Your task to perform on an android device: Turn on the flashlight Image 0: 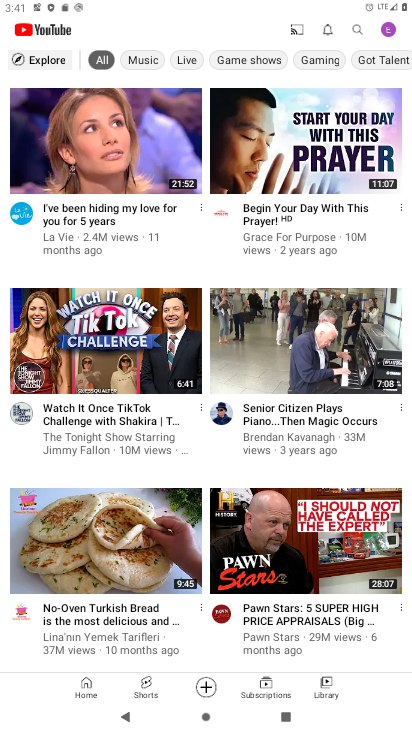
Step 0: press home button
Your task to perform on an android device: Turn on the flashlight Image 1: 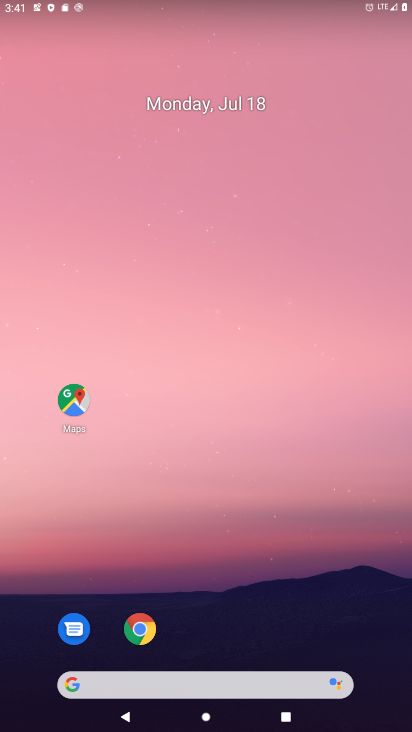
Step 1: drag from (266, 614) to (408, 0)
Your task to perform on an android device: Turn on the flashlight Image 2: 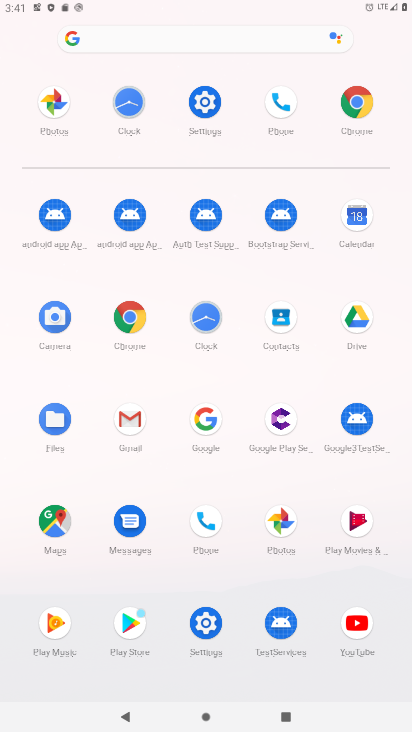
Step 2: click (213, 625)
Your task to perform on an android device: Turn on the flashlight Image 3: 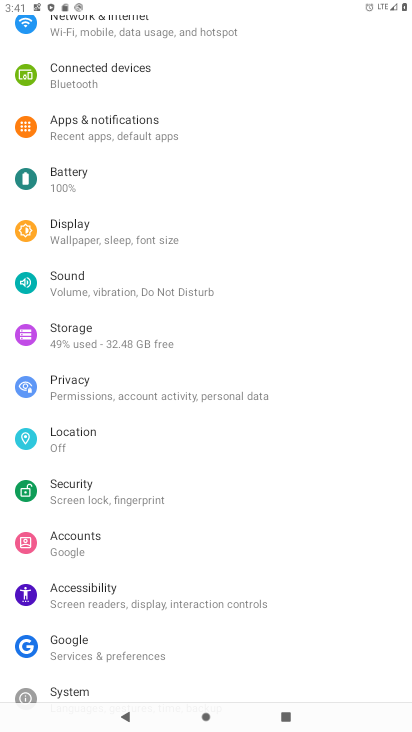
Step 3: drag from (216, 182) to (217, 607)
Your task to perform on an android device: Turn on the flashlight Image 4: 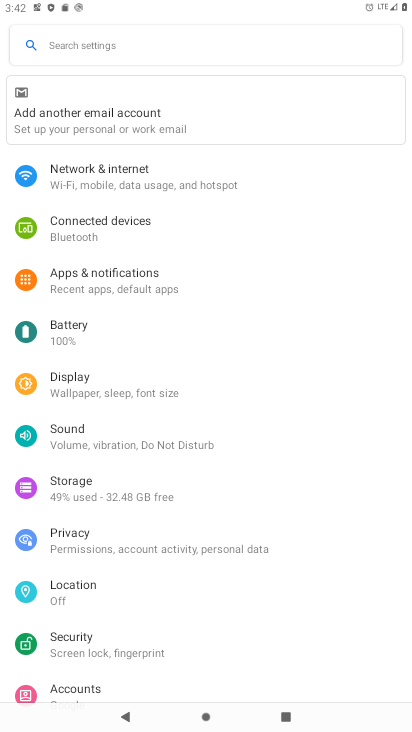
Step 4: click (195, 40)
Your task to perform on an android device: Turn on the flashlight Image 5: 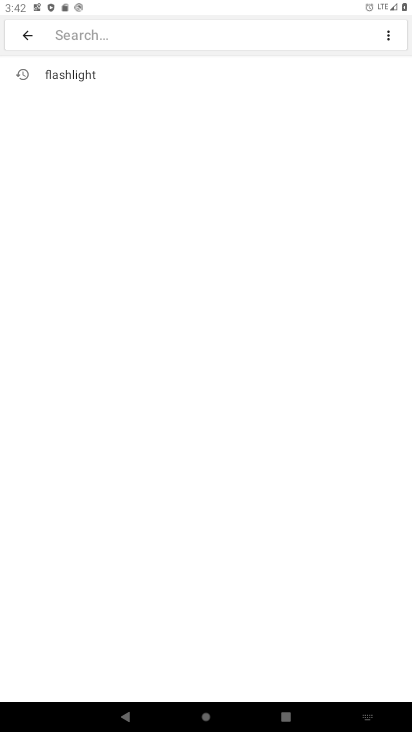
Step 5: type "flashlight"
Your task to perform on an android device: Turn on the flashlight Image 6: 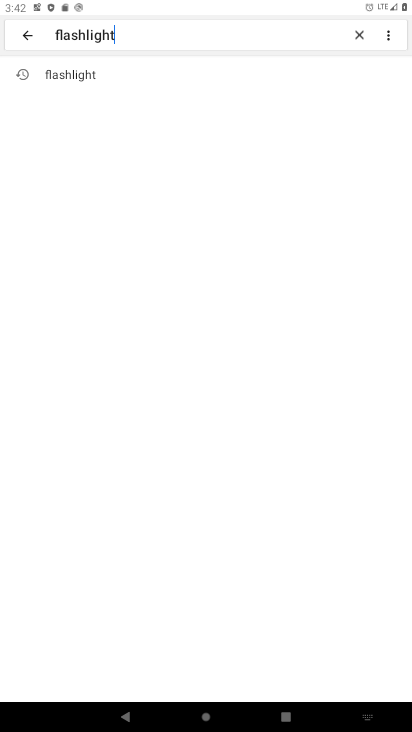
Step 6: click (72, 78)
Your task to perform on an android device: Turn on the flashlight Image 7: 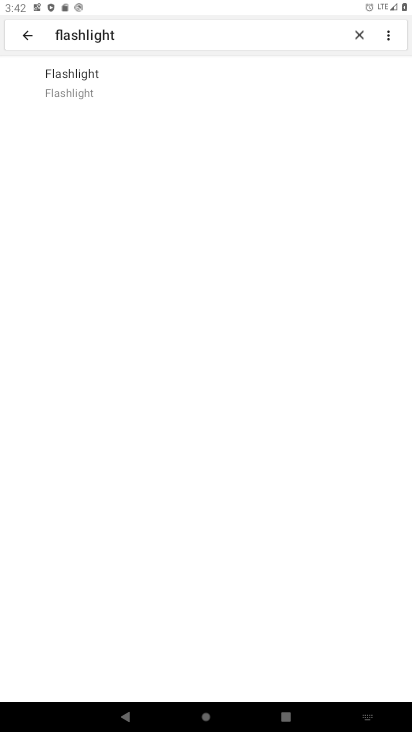
Step 7: click (97, 72)
Your task to perform on an android device: Turn on the flashlight Image 8: 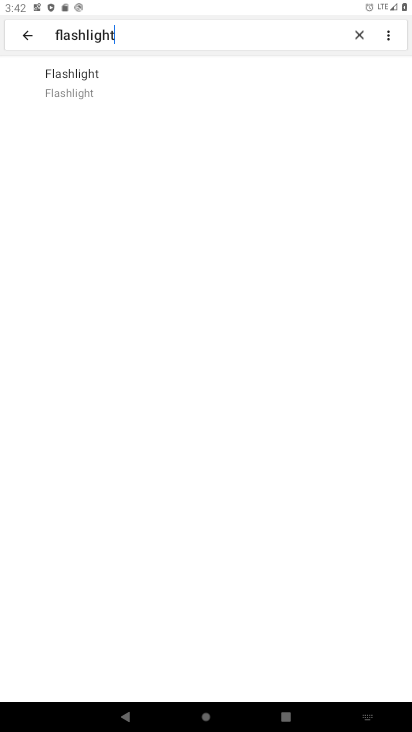
Step 8: task complete